Your task to perform on an android device: change keyboard looks Image 0: 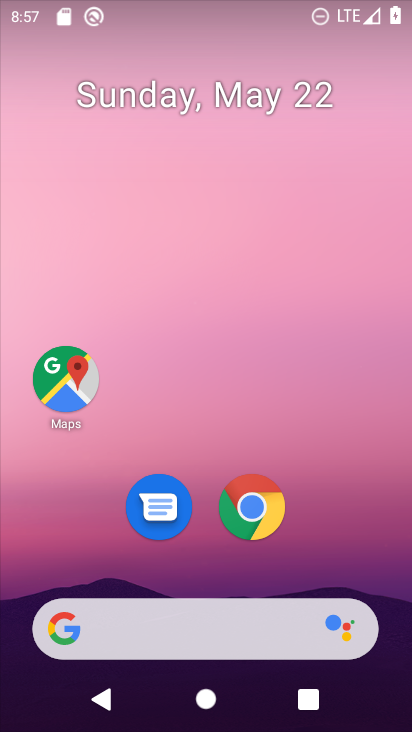
Step 0: drag from (150, 702) to (127, 91)
Your task to perform on an android device: change keyboard looks Image 1: 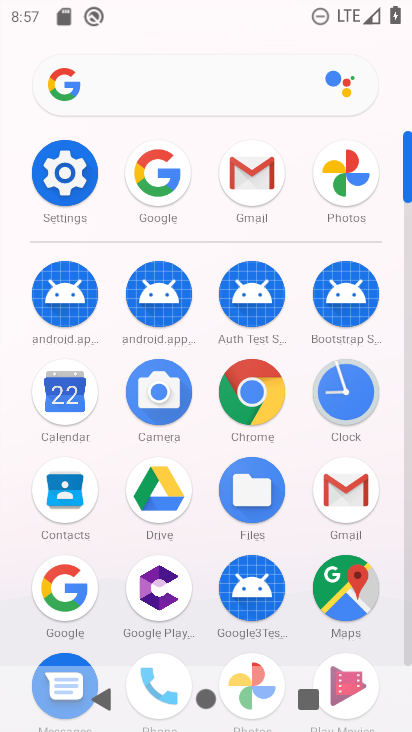
Step 1: click (63, 164)
Your task to perform on an android device: change keyboard looks Image 2: 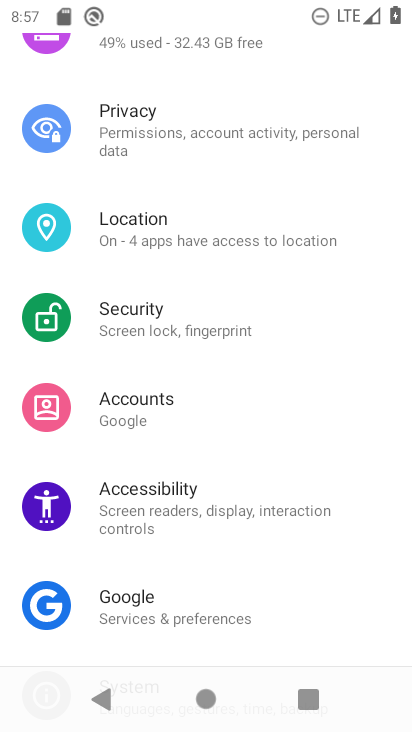
Step 2: drag from (285, 592) to (154, 28)
Your task to perform on an android device: change keyboard looks Image 3: 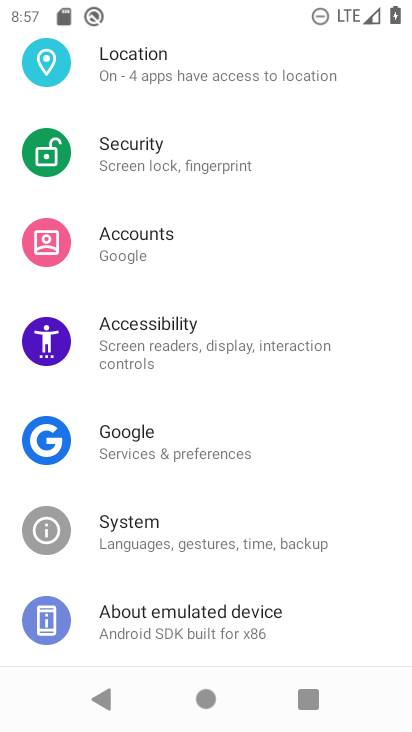
Step 3: click (264, 535)
Your task to perform on an android device: change keyboard looks Image 4: 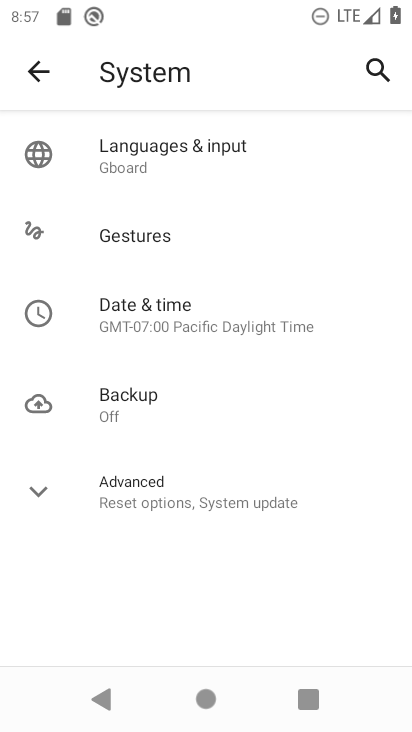
Step 4: click (206, 151)
Your task to perform on an android device: change keyboard looks Image 5: 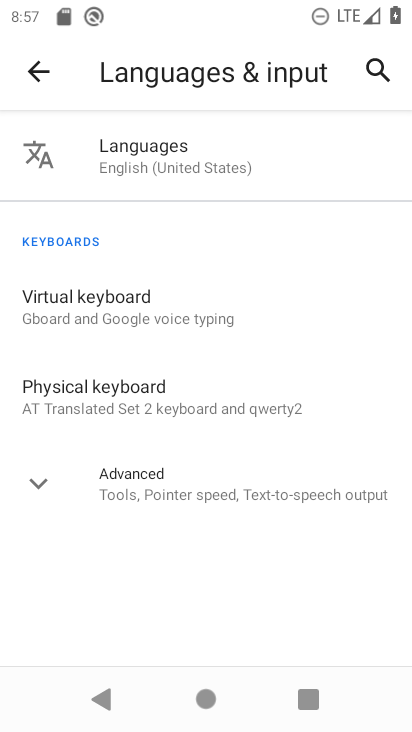
Step 5: click (126, 289)
Your task to perform on an android device: change keyboard looks Image 6: 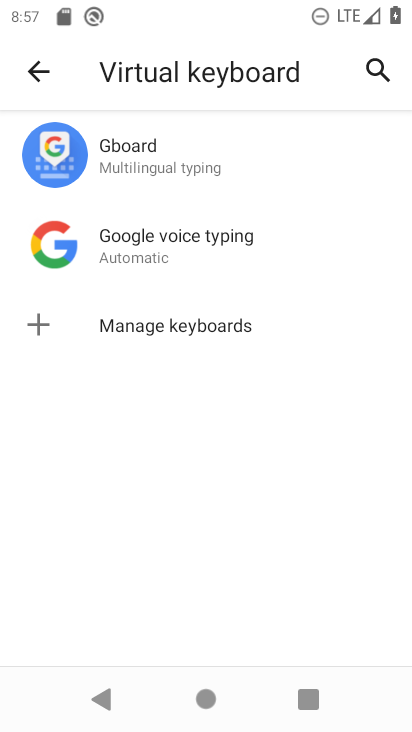
Step 6: click (128, 161)
Your task to perform on an android device: change keyboard looks Image 7: 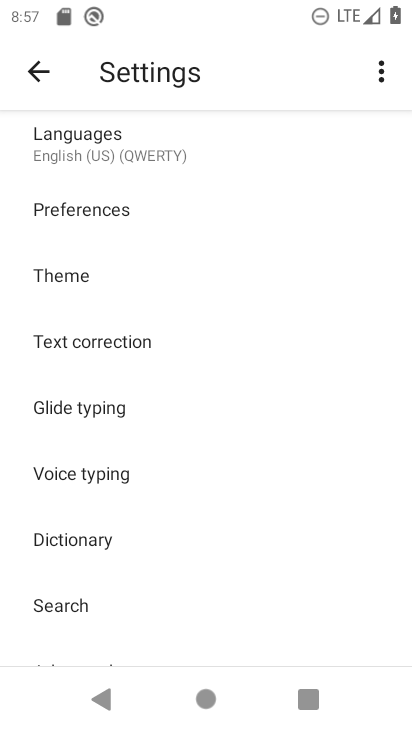
Step 7: click (86, 277)
Your task to perform on an android device: change keyboard looks Image 8: 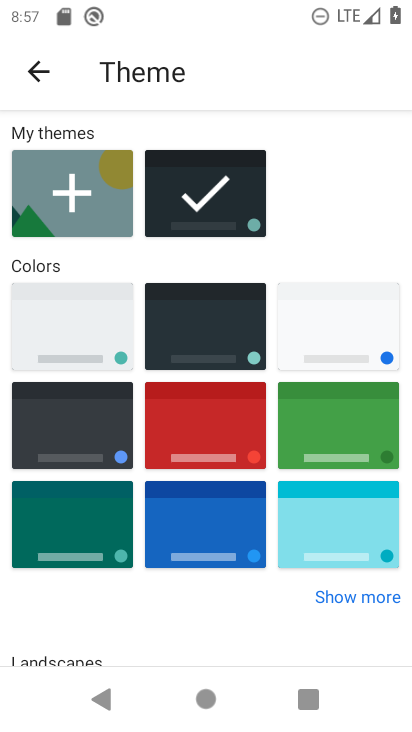
Step 8: click (221, 422)
Your task to perform on an android device: change keyboard looks Image 9: 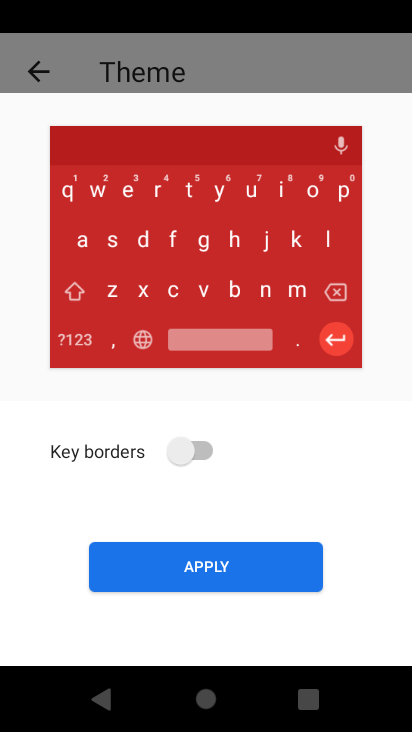
Step 9: click (181, 573)
Your task to perform on an android device: change keyboard looks Image 10: 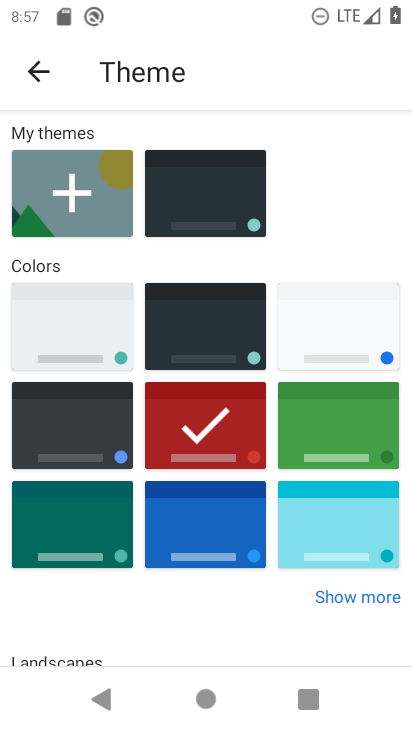
Step 10: task complete